Your task to perform on an android device: turn on data saver in the chrome app Image 0: 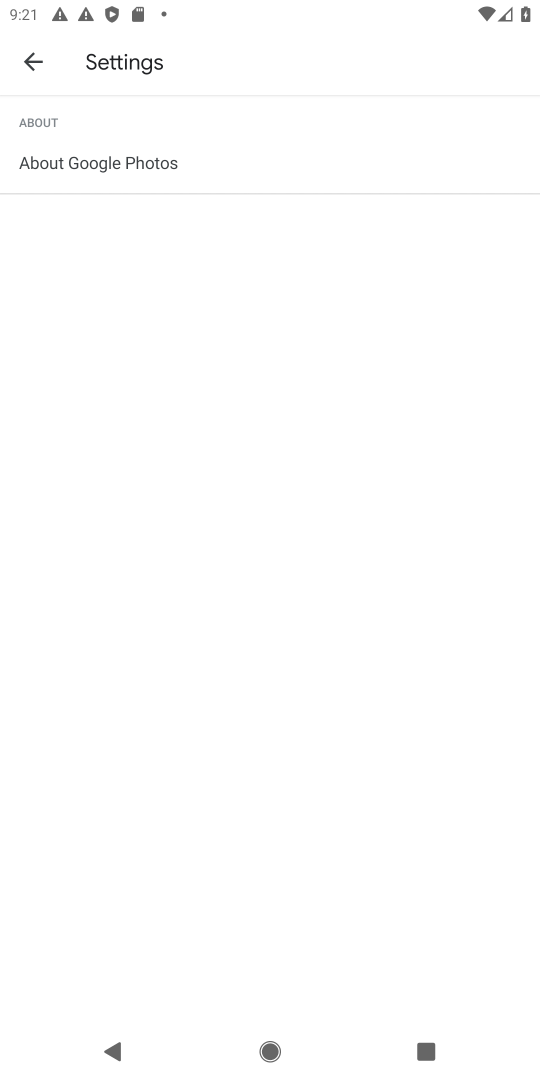
Step 0: press home button
Your task to perform on an android device: turn on data saver in the chrome app Image 1: 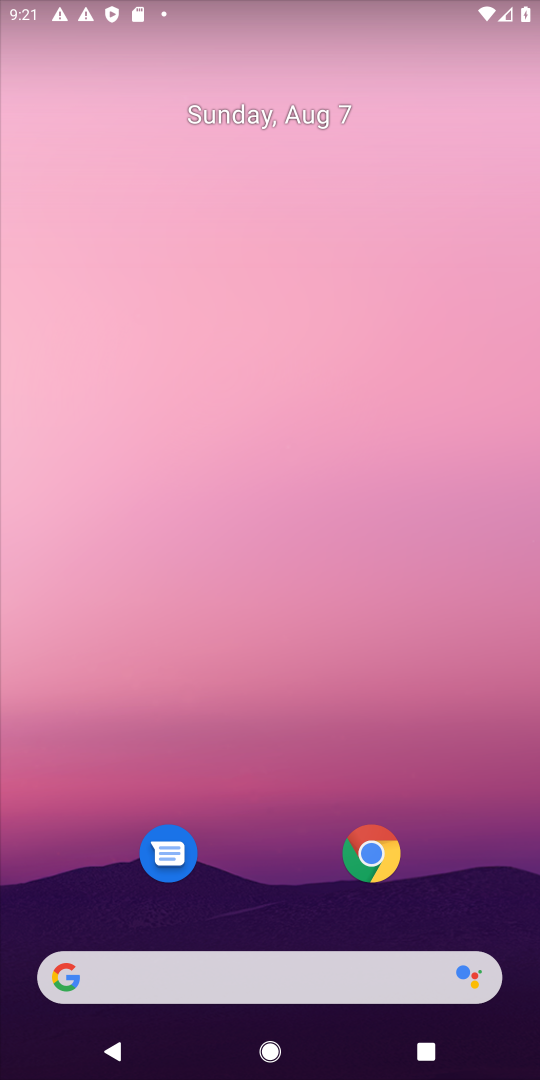
Step 1: click (530, 782)
Your task to perform on an android device: turn on data saver in the chrome app Image 2: 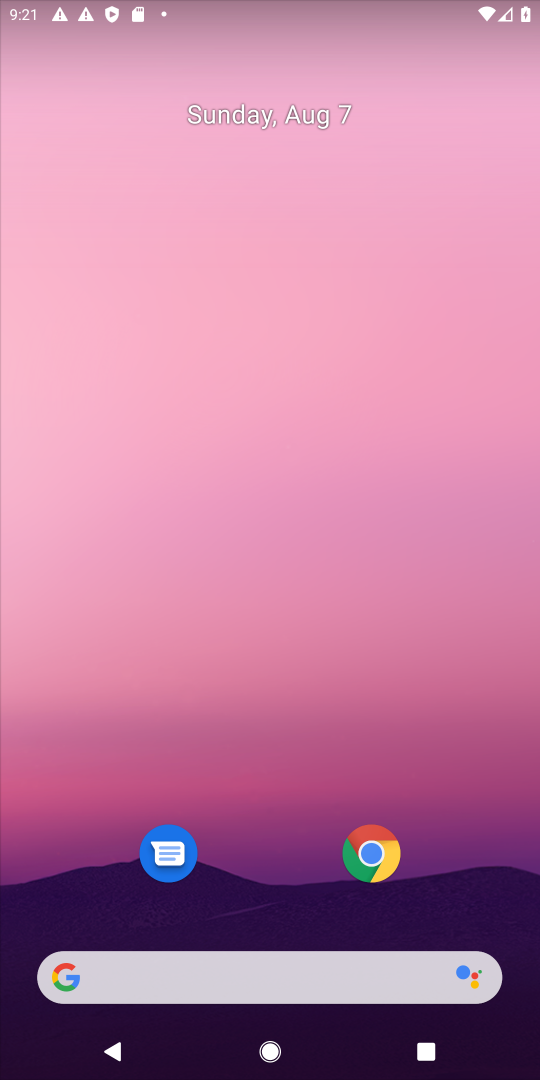
Step 2: drag from (466, 885) to (461, 299)
Your task to perform on an android device: turn on data saver in the chrome app Image 3: 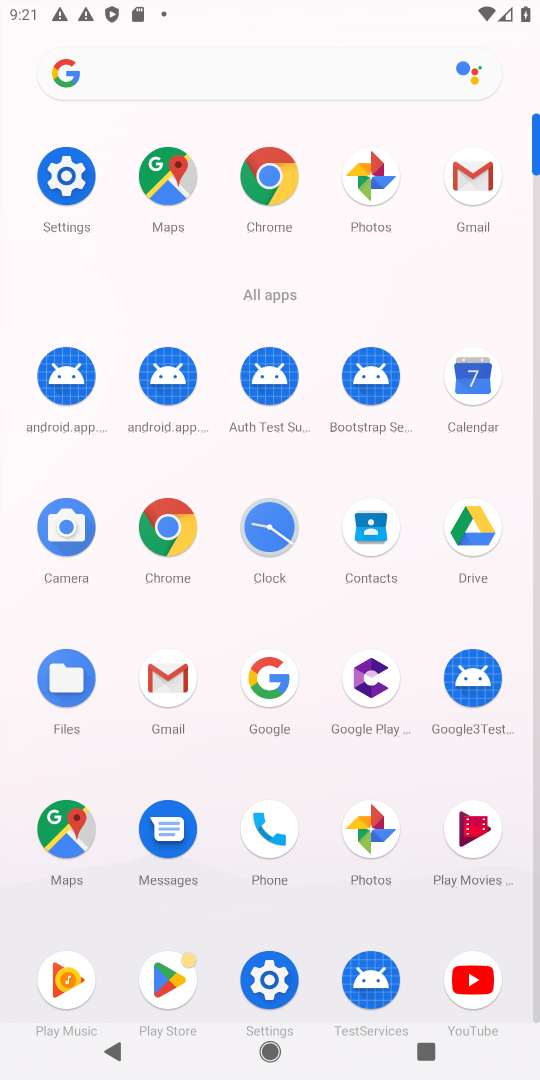
Step 3: click (160, 529)
Your task to perform on an android device: turn on data saver in the chrome app Image 4: 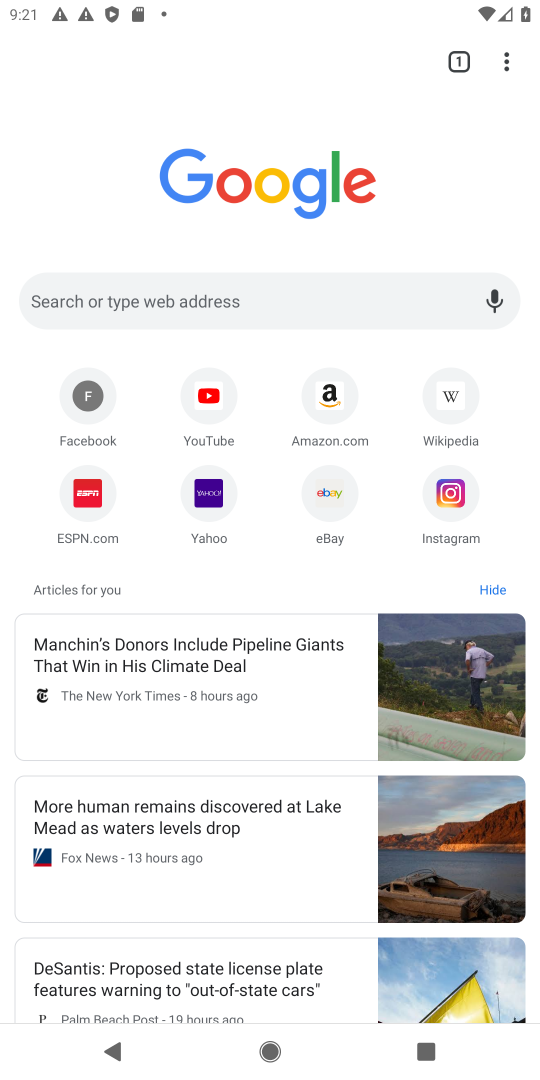
Step 4: click (505, 65)
Your task to perform on an android device: turn on data saver in the chrome app Image 5: 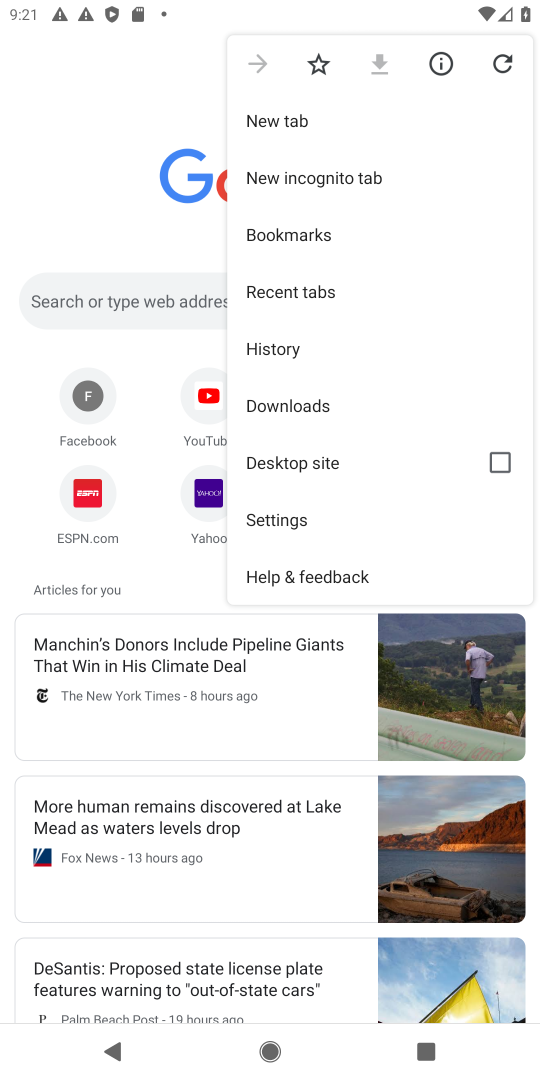
Step 5: click (303, 522)
Your task to perform on an android device: turn on data saver in the chrome app Image 6: 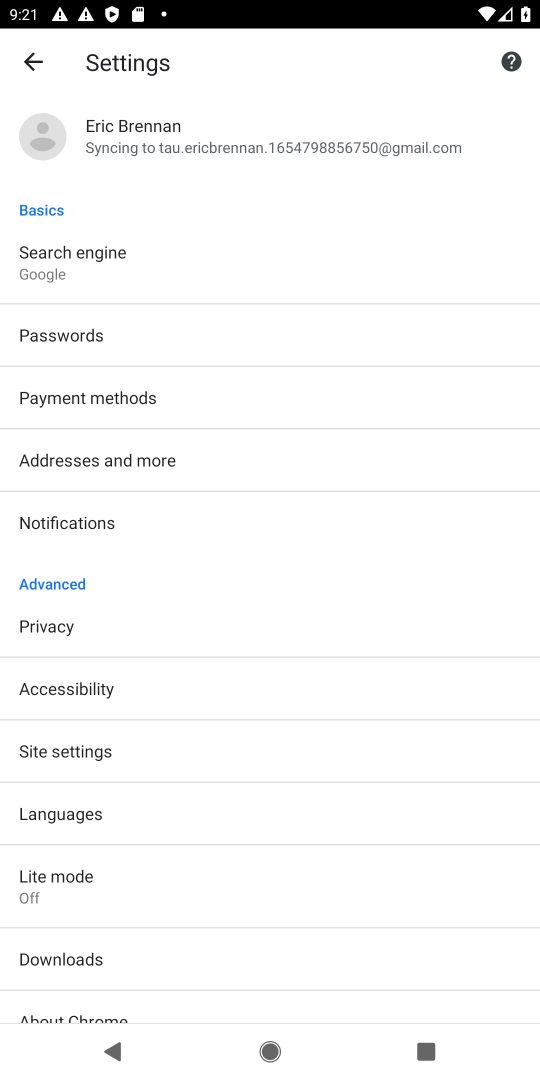
Step 6: drag from (366, 800) to (362, 556)
Your task to perform on an android device: turn on data saver in the chrome app Image 7: 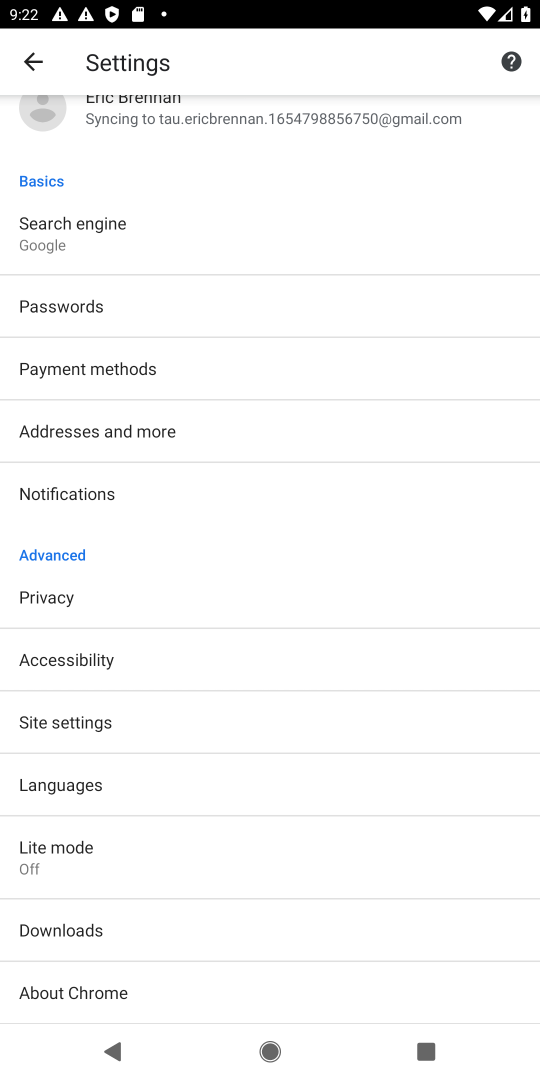
Step 7: click (354, 847)
Your task to perform on an android device: turn on data saver in the chrome app Image 8: 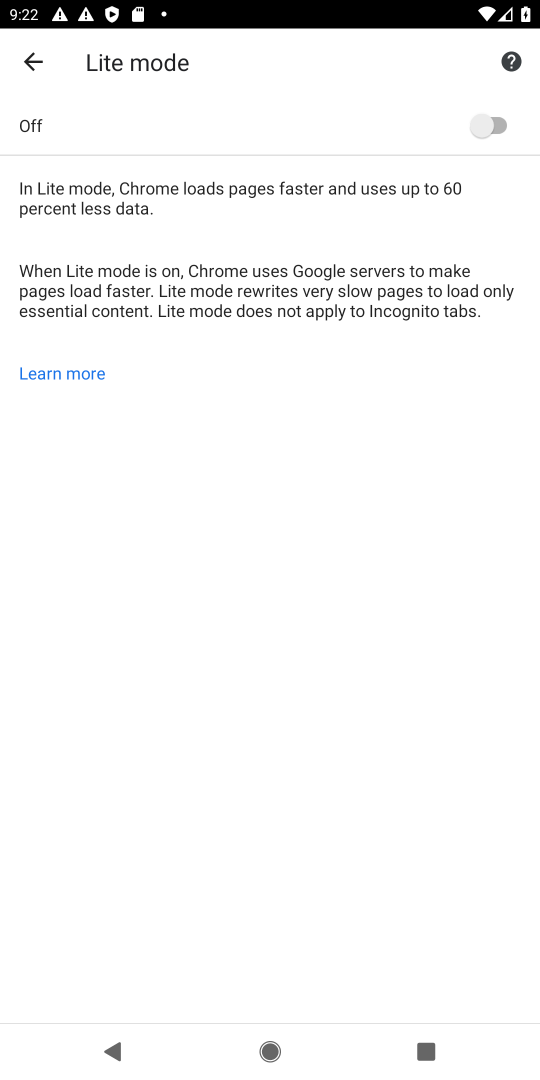
Step 8: click (473, 131)
Your task to perform on an android device: turn on data saver in the chrome app Image 9: 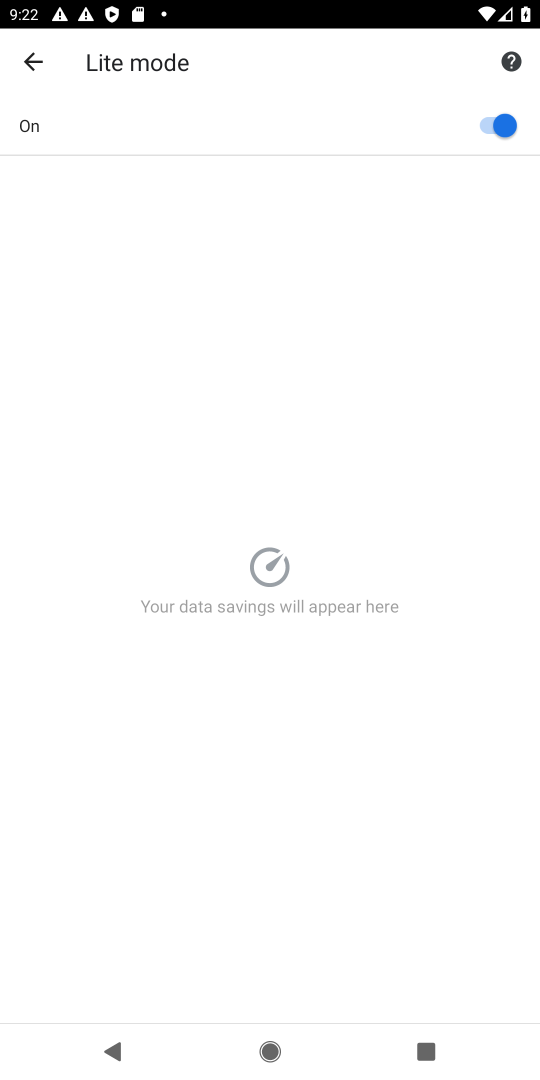
Step 9: task complete